Your task to perform on an android device: Go to Google maps Image 0: 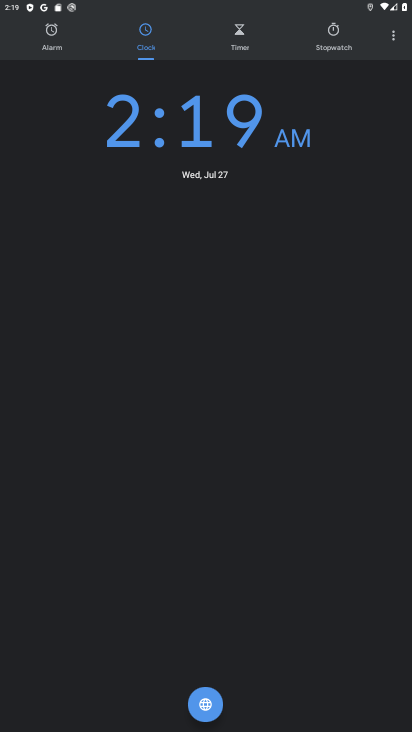
Step 0: press home button
Your task to perform on an android device: Go to Google maps Image 1: 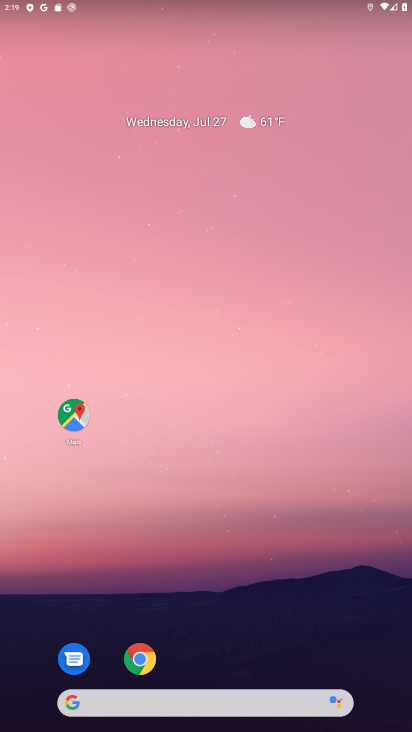
Step 1: click (76, 419)
Your task to perform on an android device: Go to Google maps Image 2: 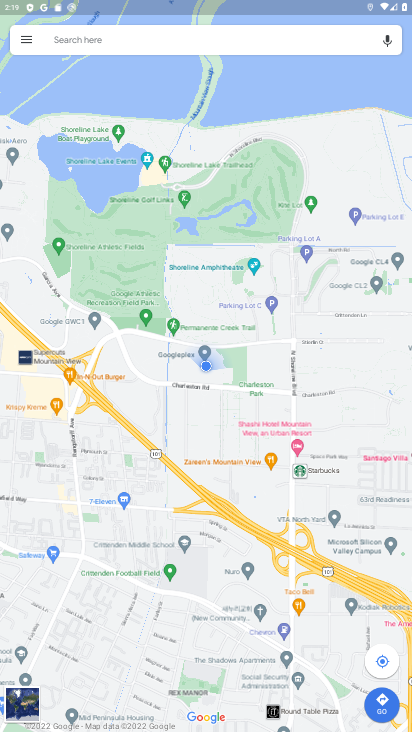
Step 2: task complete